Your task to perform on an android device: open app "Instagram" (install if not already installed) and go to login screen Image 0: 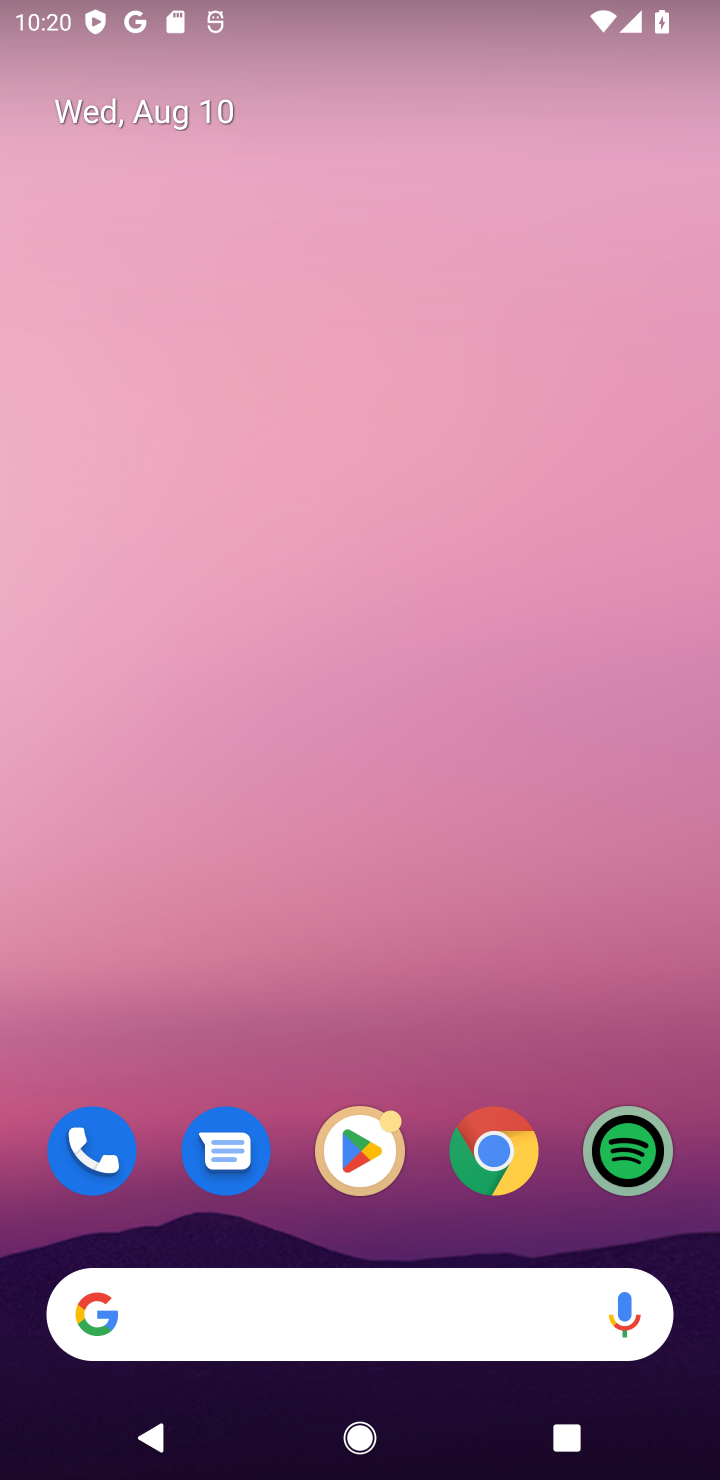
Step 0: click (357, 1159)
Your task to perform on an android device: open app "Instagram" (install if not already installed) and go to login screen Image 1: 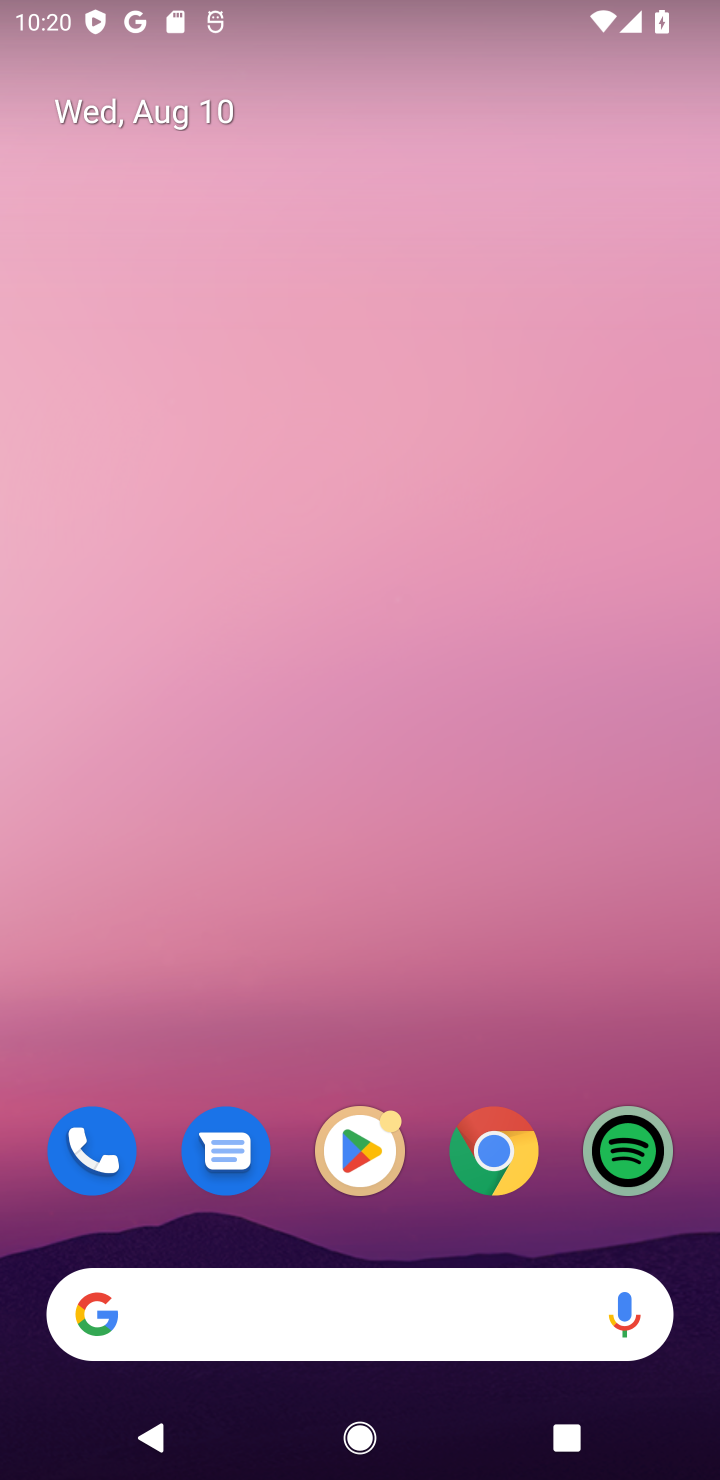
Step 1: click (344, 1148)
Your task to perform on an android device: open app "Instagram" (install if not already installed) and go to login screen Image 2: 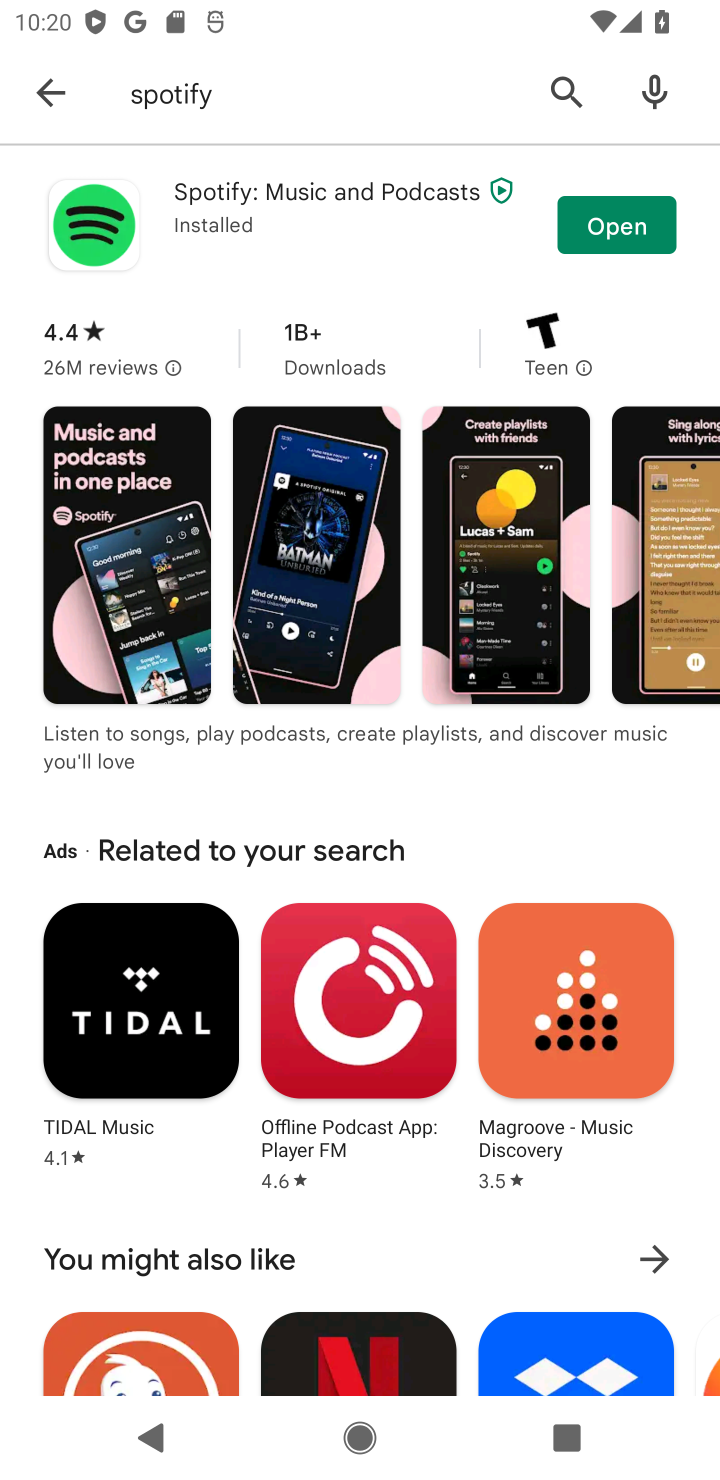
Step 2: click (561, 88)
Your task to perform on an android device: open app "Instagram" (install if not already installed) and go to login screen Image 3: 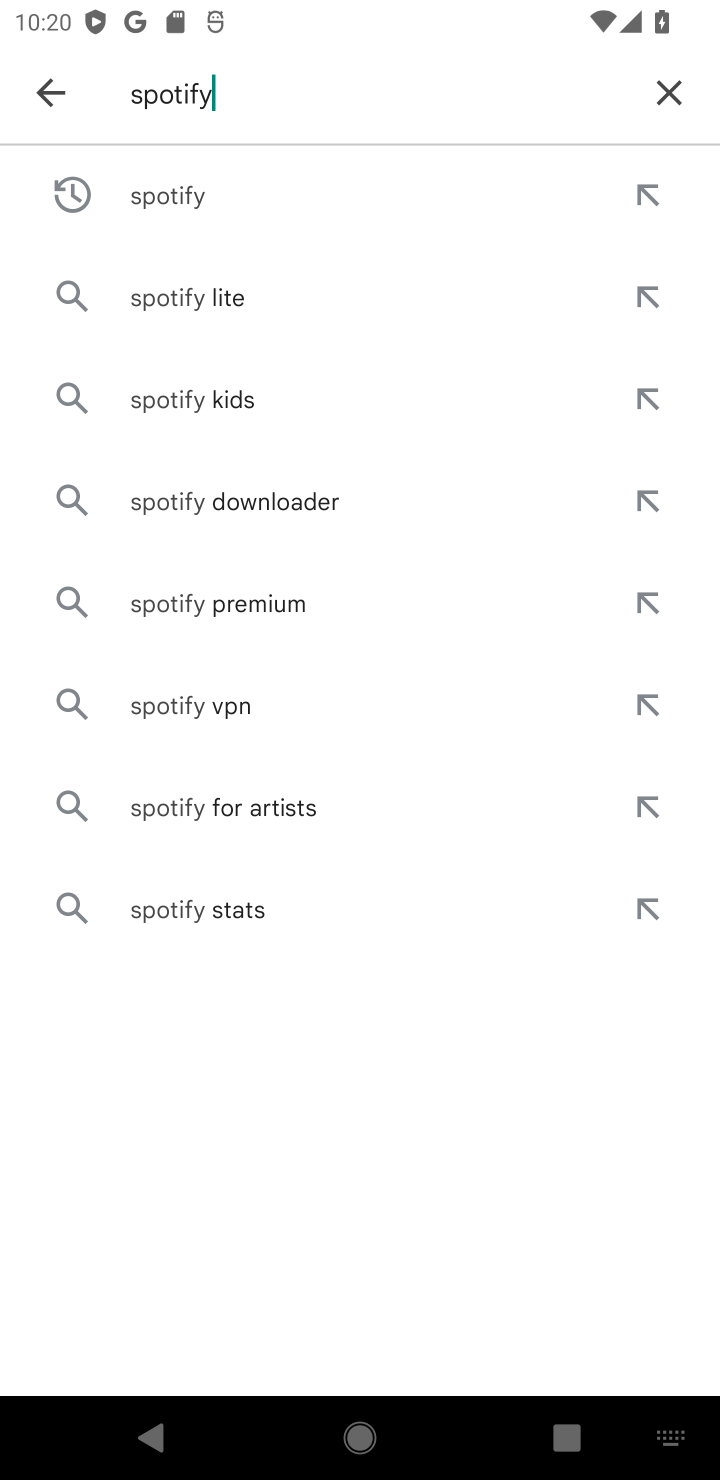
Step 3: click (655, 93)
Your task to perform on an android device: open app "Instagram" (install if not already installed) and go to login screen Image 4: 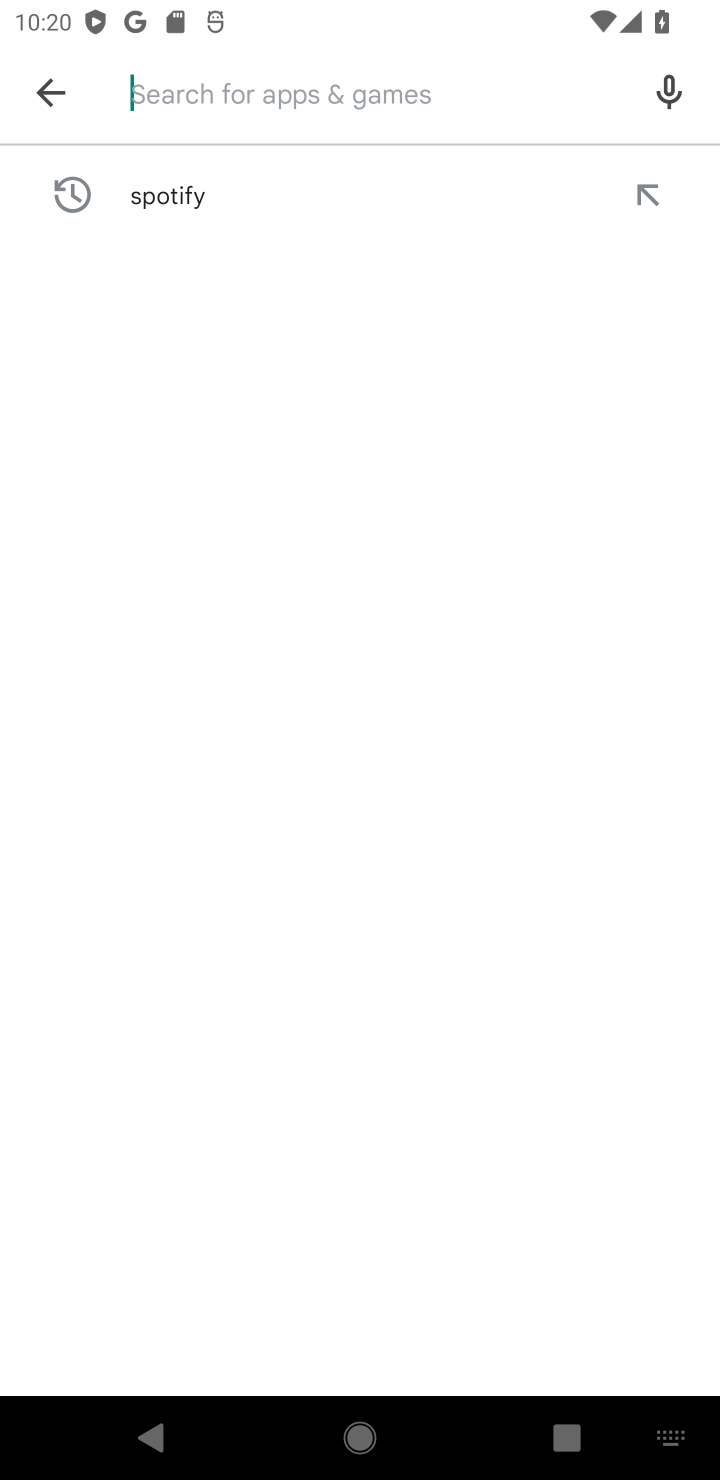
Step 4: click (300, 91)
Your task to perform on an android device: open app "Instagram" (install if not already installed) and go to login screen Image 5: 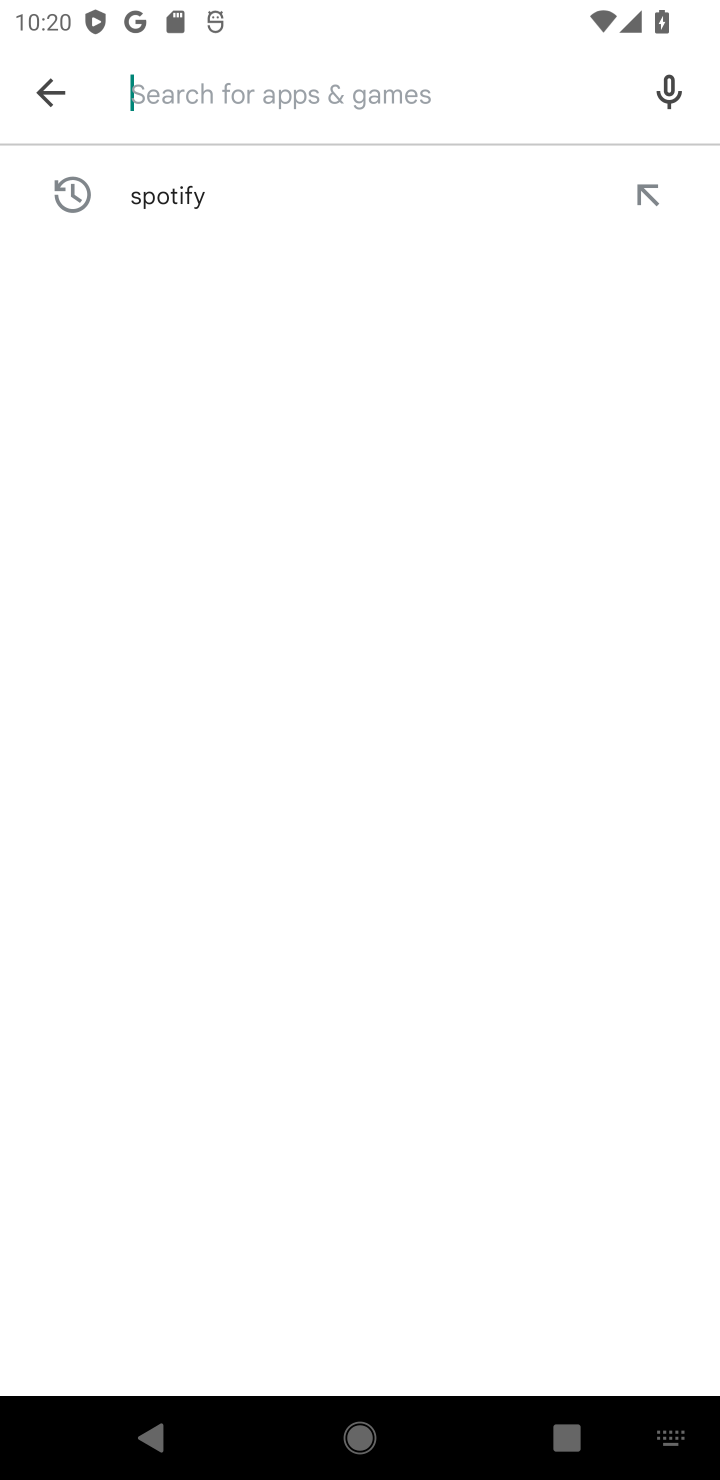
Step 5: type "Instagram"
Your task to perform on an android device: open app "Instagram" (install if not already installed) and go to login screen Image 6: 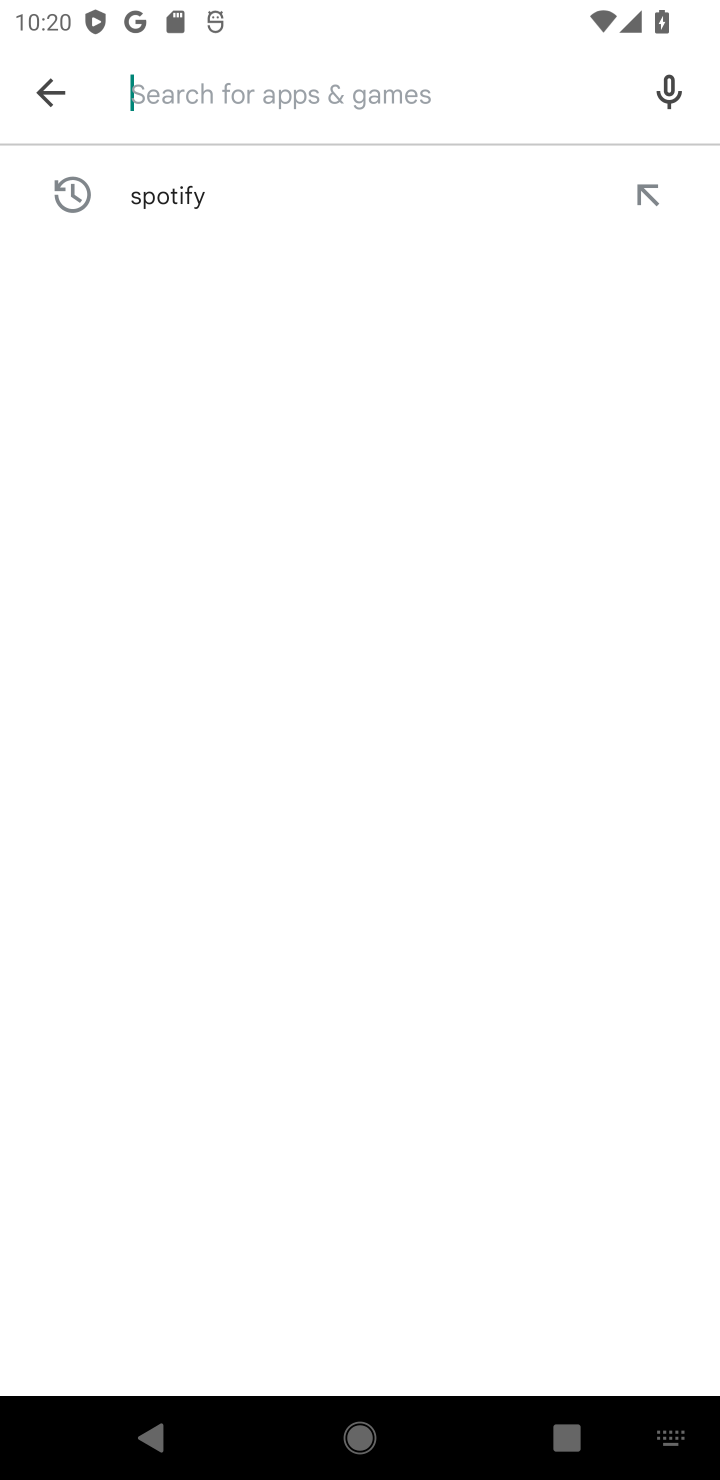
Step 6: click (247, 965)
Your task to perform on an android device: open app "Instagram" (install if not already installed) and go to login screen Image 7: 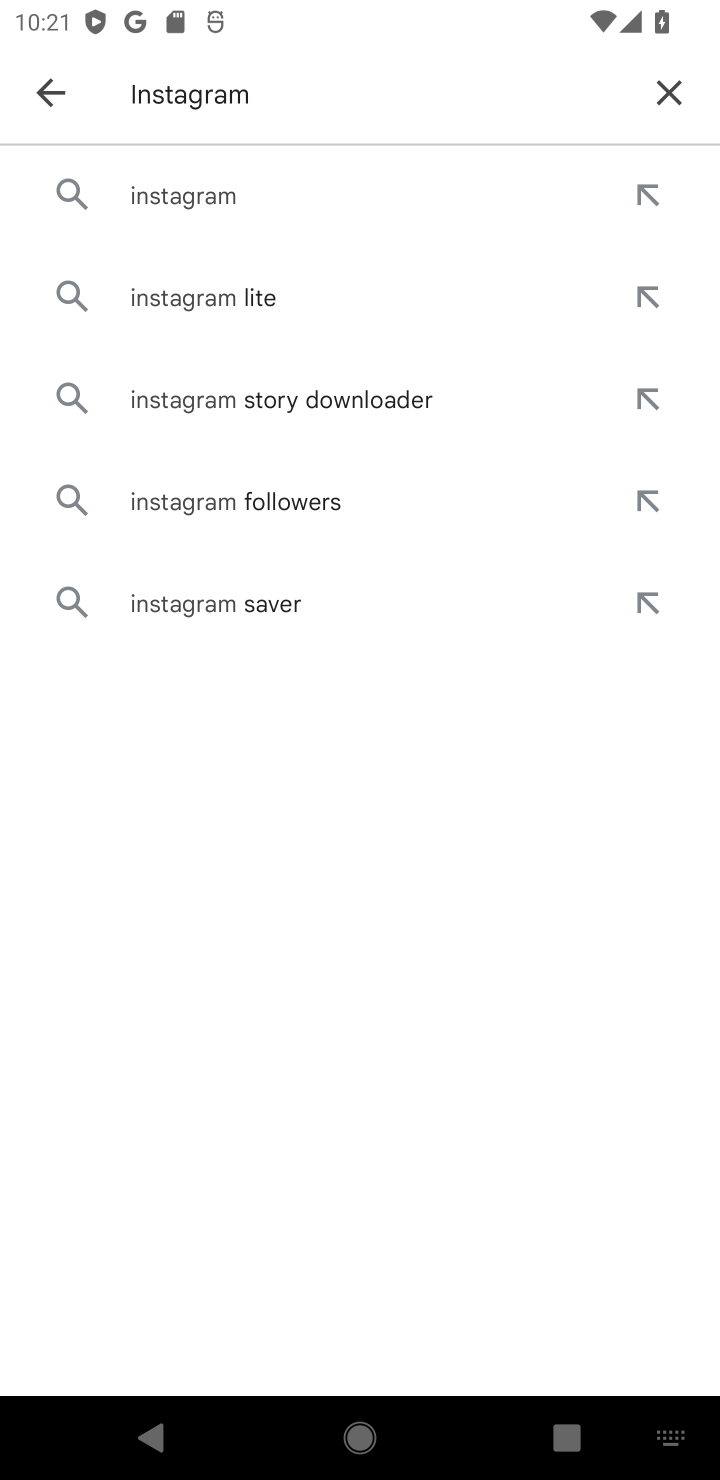
Step 7: click (174, 224)
Your task to perform on an android device: open app "Instagram" (install if not already installed) and go to login screen Image 8: 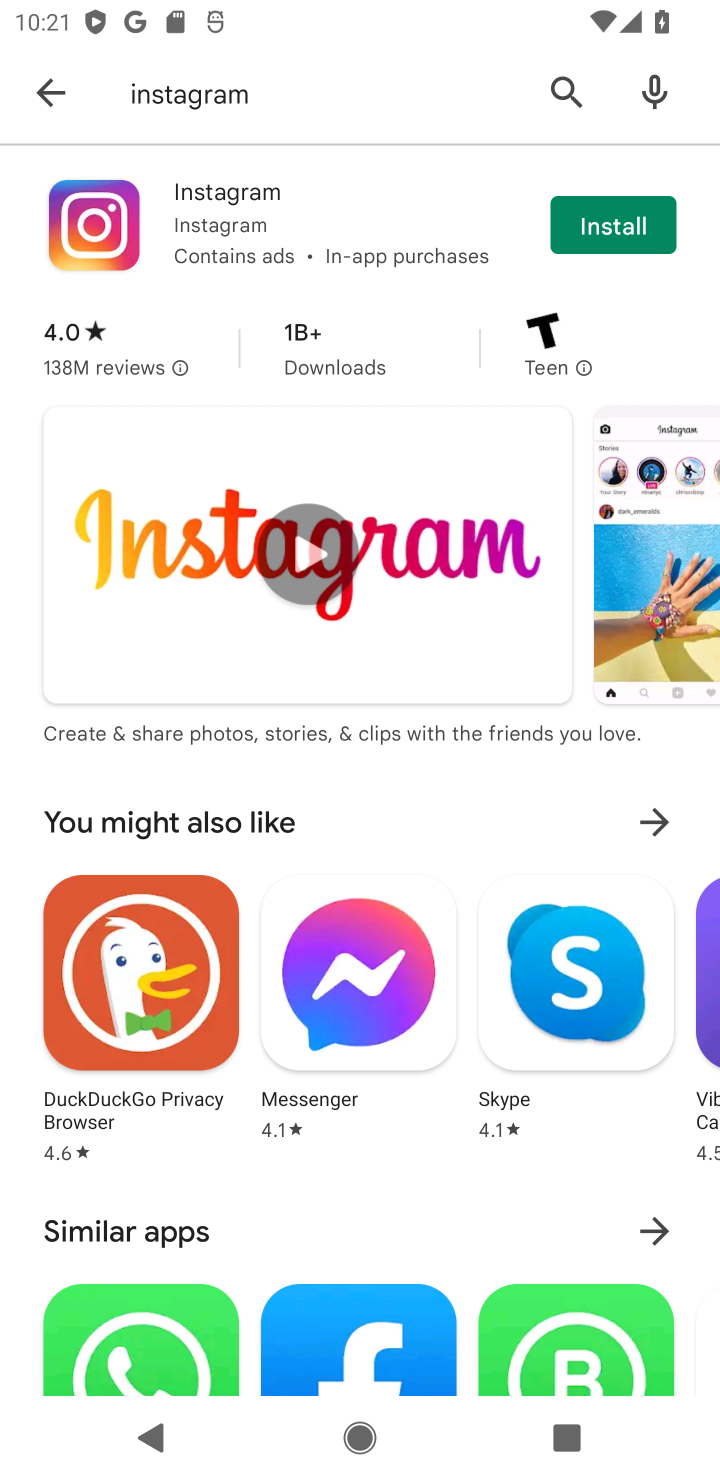
Step 8: click (645, 227)
Your task to perform on an android device: open app "Instagram" (install if not already installed) and go to login screen Image 9: 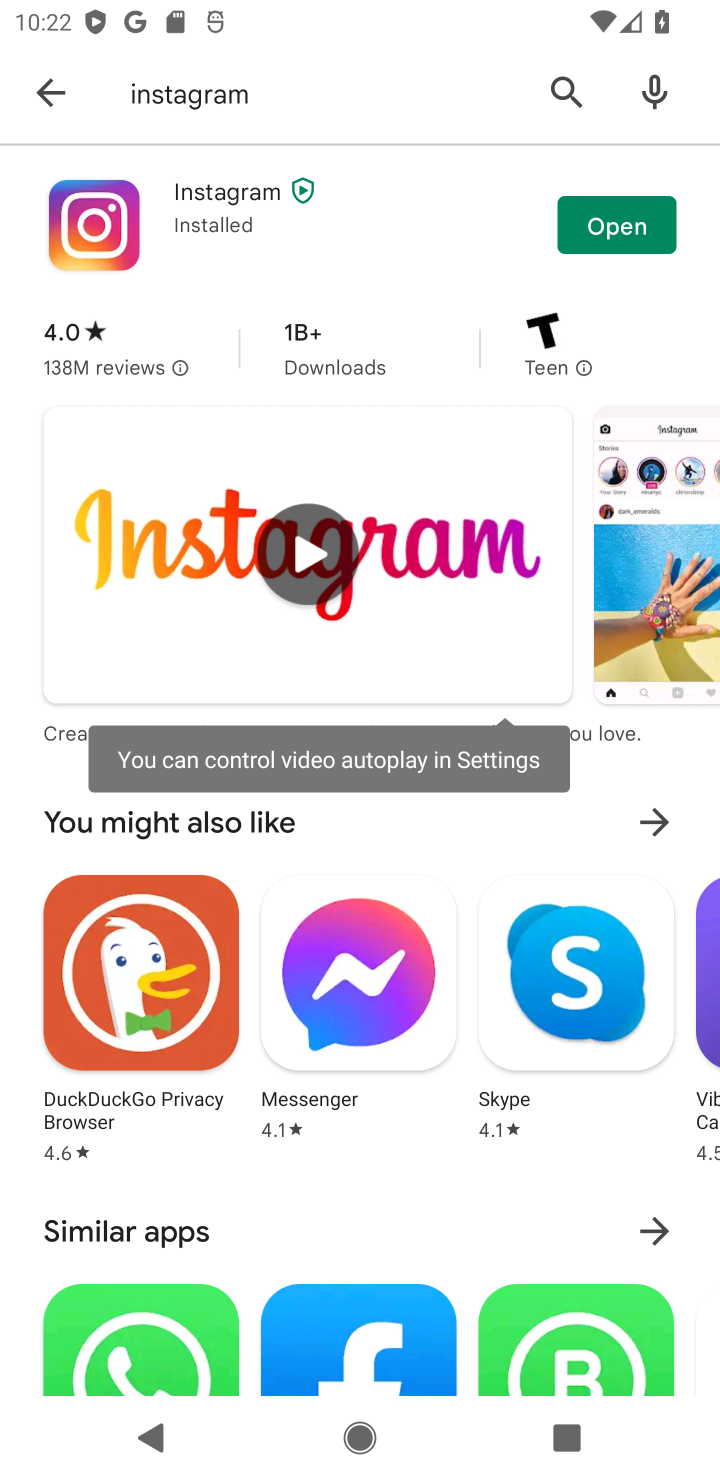
Step 9: click (606, 211)
Your task to perform on an android device: open app "Instagram" (install if not already installed) and go to login screen Image 10: 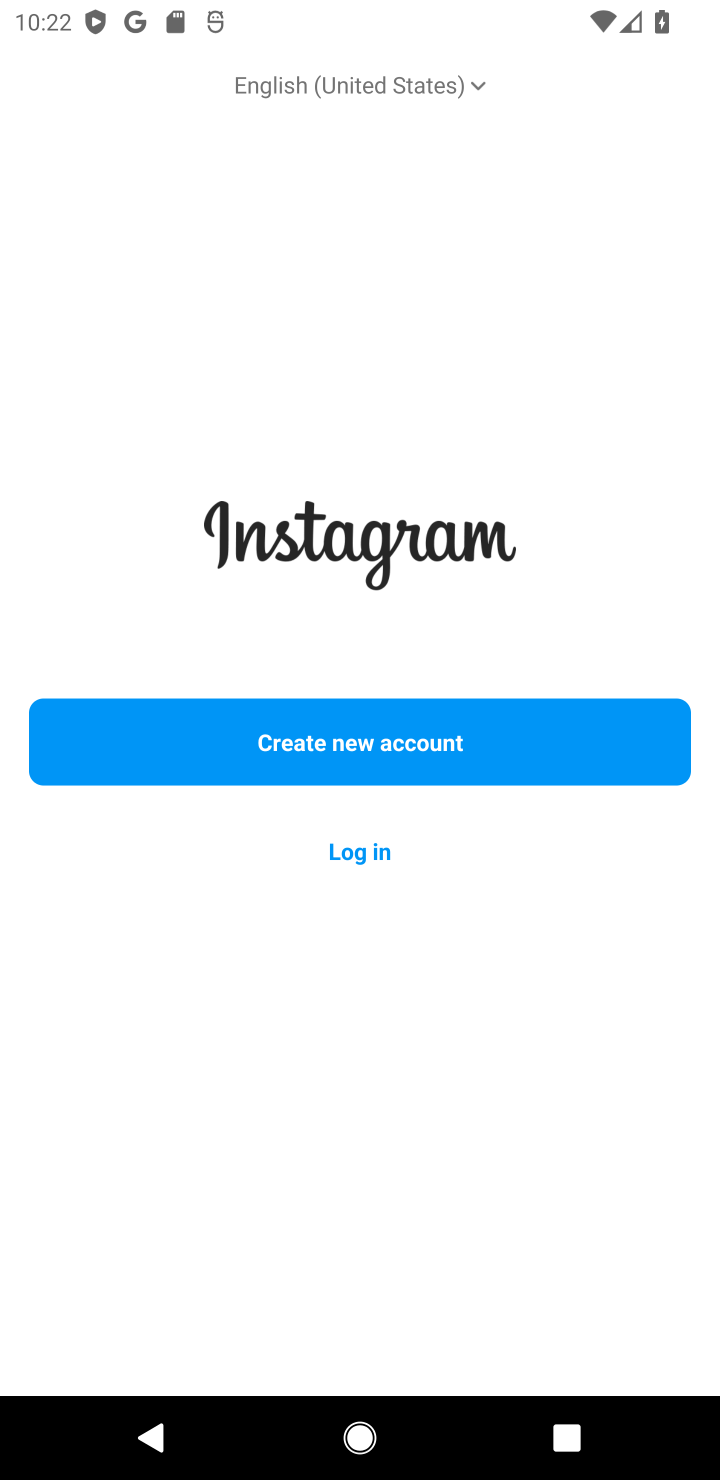
Step 10: task complete